Your task to perform on an android device: empty trash in the gmail app Image 0: 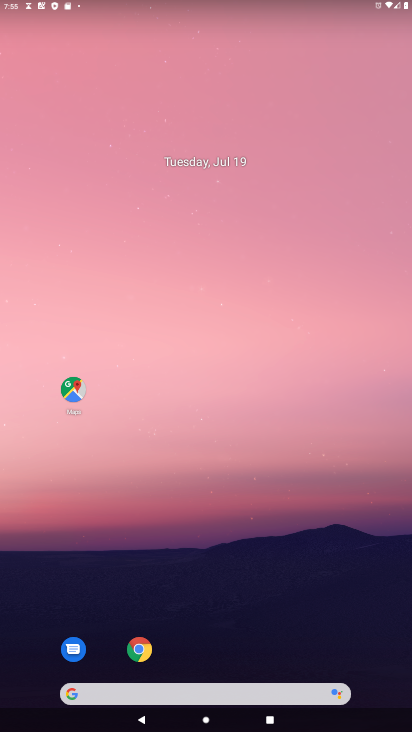
Step 0: drag from (223, 693) to (338, 256)
Your task to perform on an android device: empty trash in the gmail app Image 1: 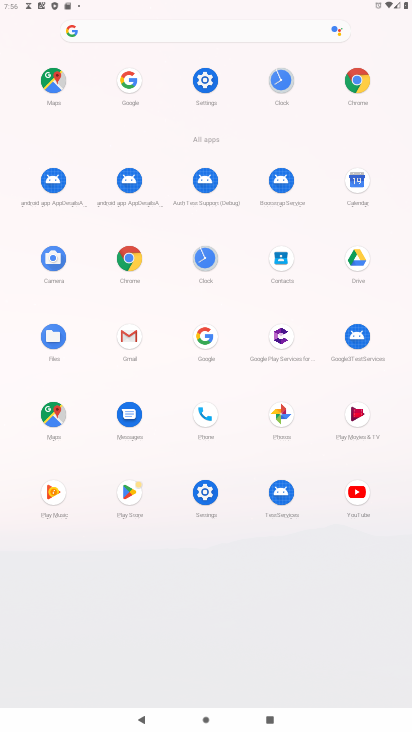
Step 1: click (126, 338)
Your task to perform on an android device: empty trash in the gmail app Image 2: 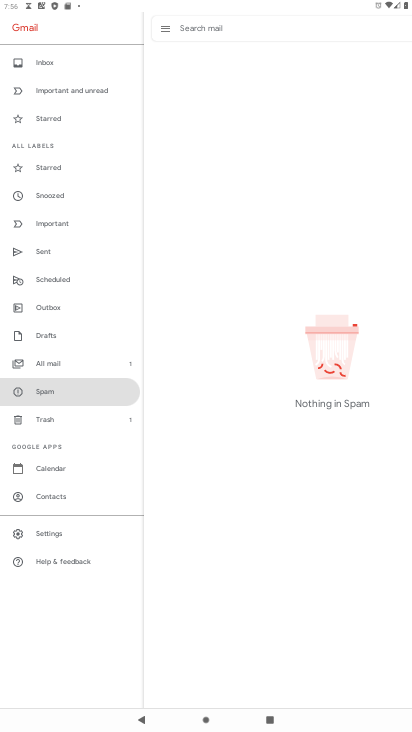
Step 2: click (72, 421)
Your task to perform on an android device: empty trash in the gmail app Image 3: 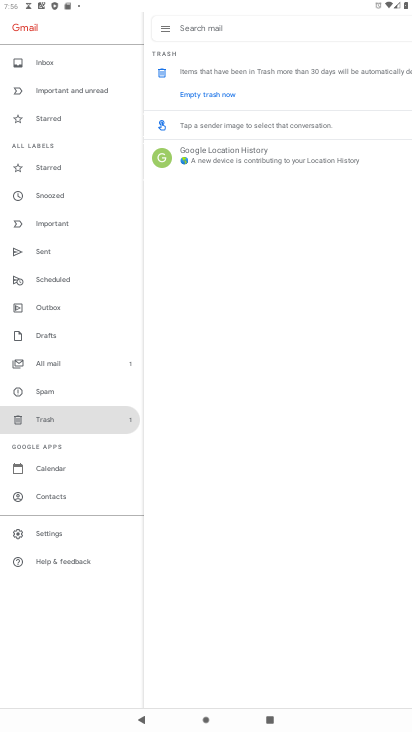
Step 3: click (223, 93)
Your task to perform on an android device: empty trash in the gmail app Image 4: 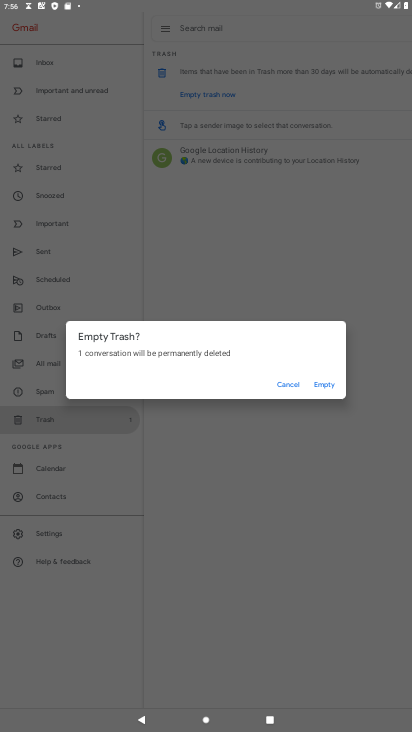
Step 4: click (330, 379)
Your task to perform on an android device: empty trash in the gmail app Image 5: 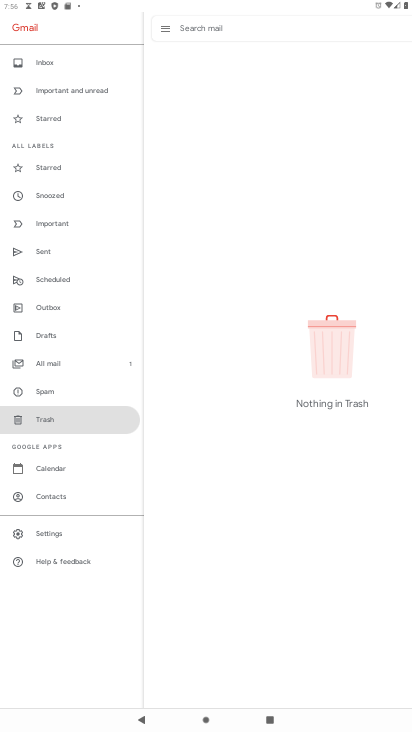
Step 5: task complete